Your task to perform on an android device: turn off translation in the chrome app Image 0: 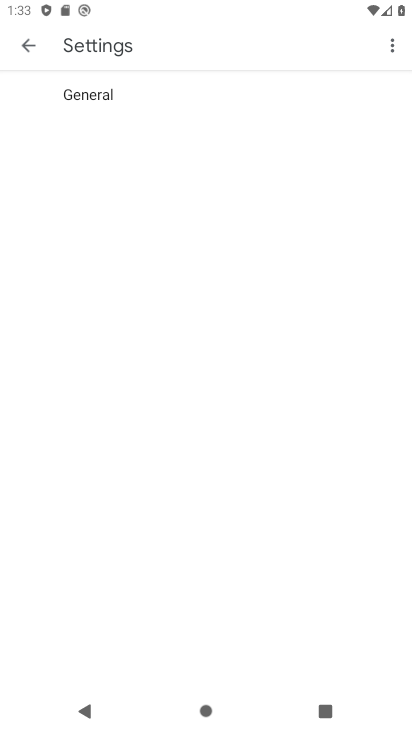
Step 0: press home button
Your task to perform on an android device: turn off translation in the chrome app Image 1: 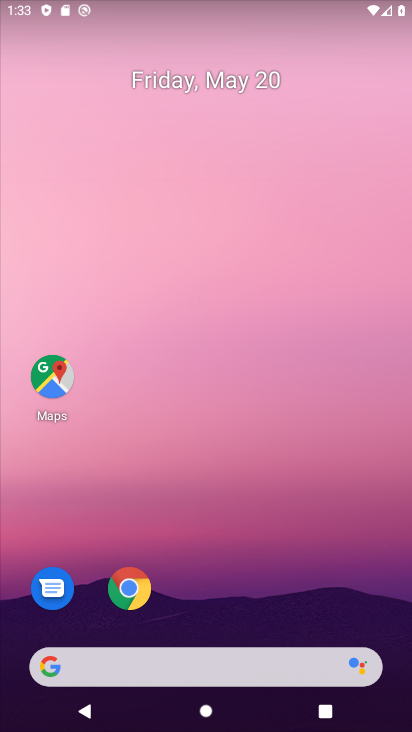
Step 1: click (141, 598)
Your task to perform on an android device: turn off translation in the chrome app Image 2: 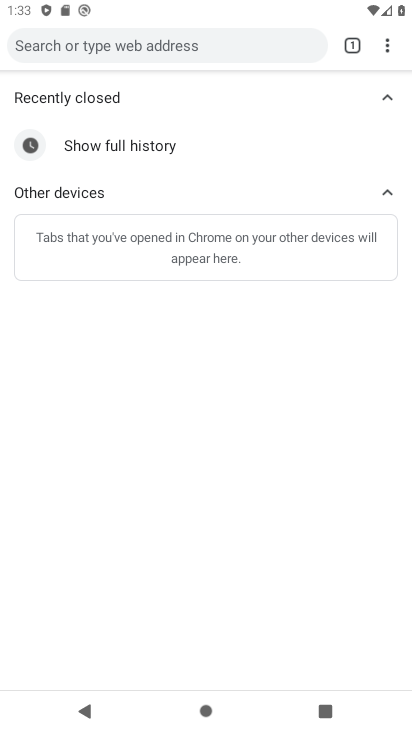
Step 2: click (386, 56)
Your task to perform on an android device: turn off translation in the chrome app Image 3: 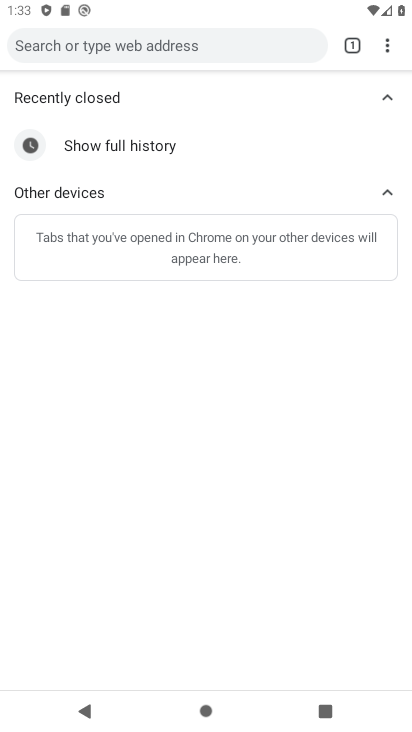
Step 3: drag from (386, 56) to (233, 384)
Your task to perform on an android device: turn off translation in the chrome app Image 4: 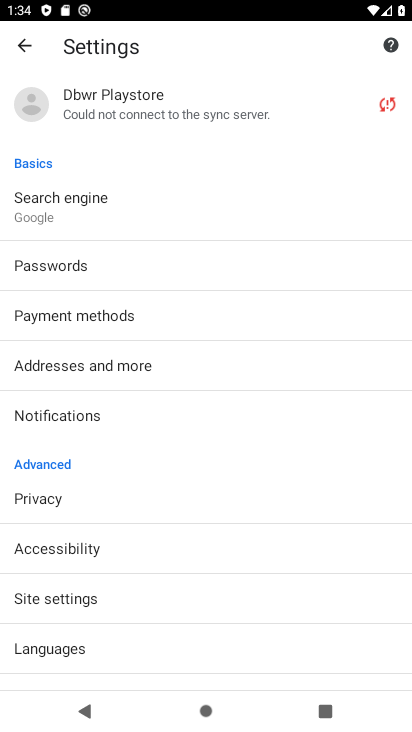
Step 4: click (90, 649)
Your task to perform on an android device: turn off translation in the chrome app Image 5: 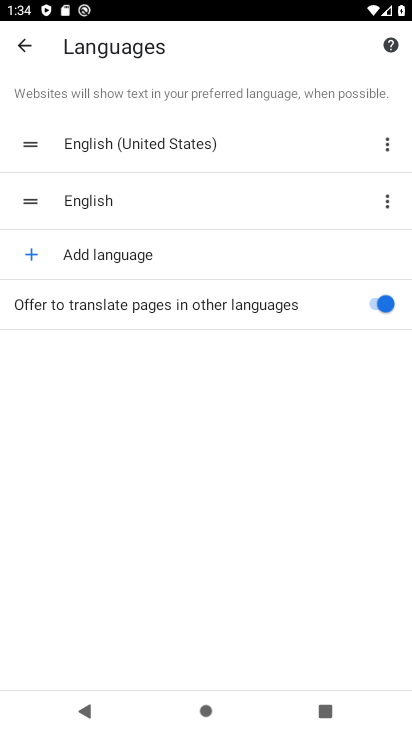
Step 5: click (381, 295)
Your task to perform on an android device: turn off translation in the chrome app Image 6: 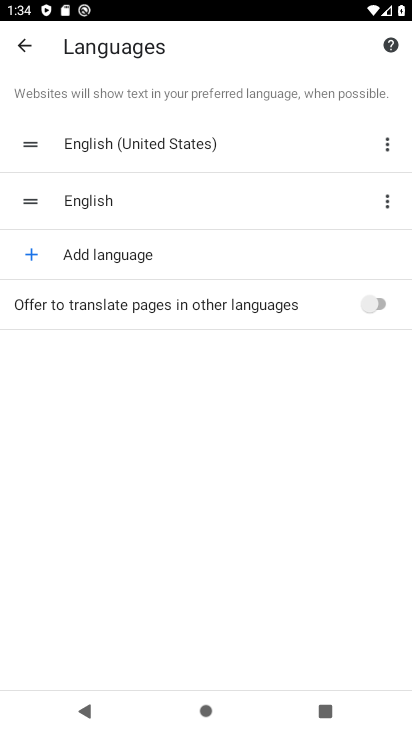
Step 6: task complete